Your task to perform on an android device: clear all cookies in the chrome app Image 0: 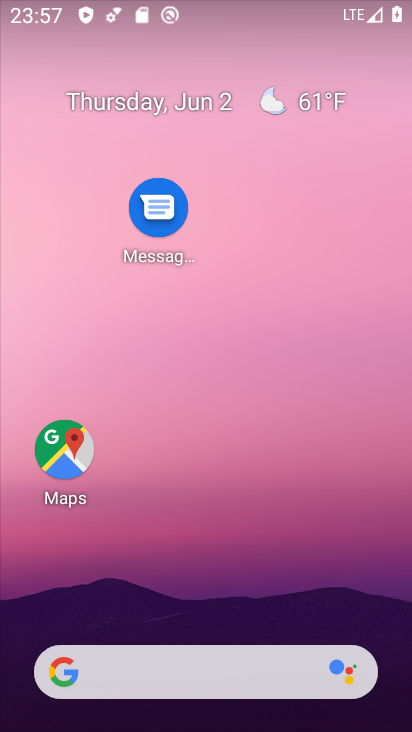
Step 0: drag from (218, 622) to (158, 93)
Your task to perform on an android device: clear all cookies in the chrome app Image 1: 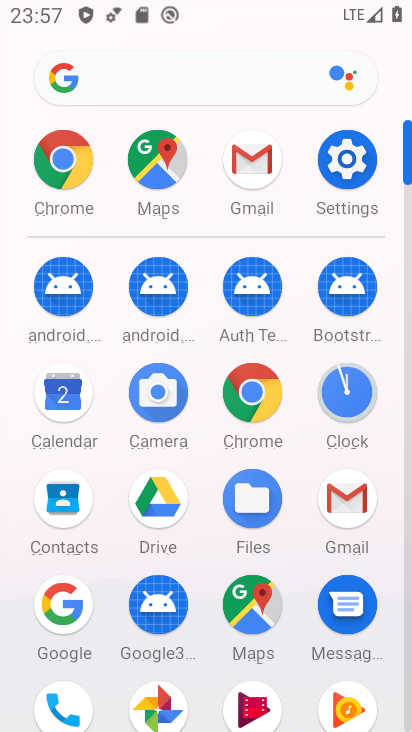
Step 1: click (257, 401)
Your task to perform on an android device: clear all cookies in the chrome app Image 2: 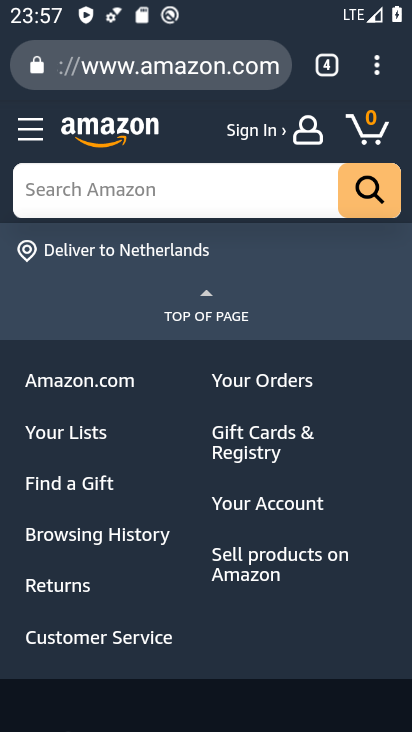
Step 2: drag from (376, 62) to (186, 642)
Your task to perform on an android device: clear all cookies in the chrome app Image 3: 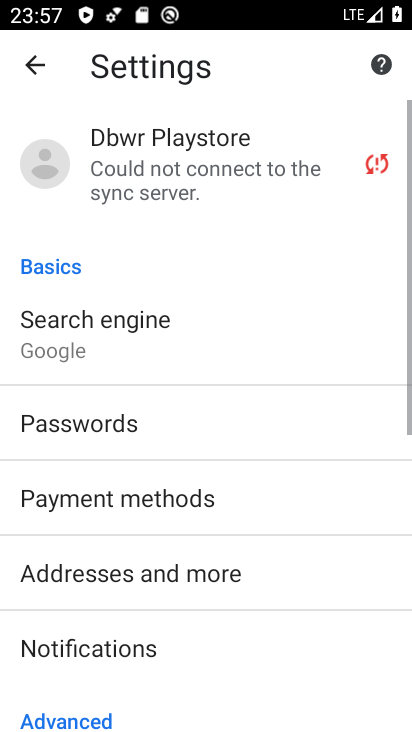
Step 3: drag from (185, 642) to (127, 111)
Your task to perform on an android device: clear all cookies in the chrome app Image 4: 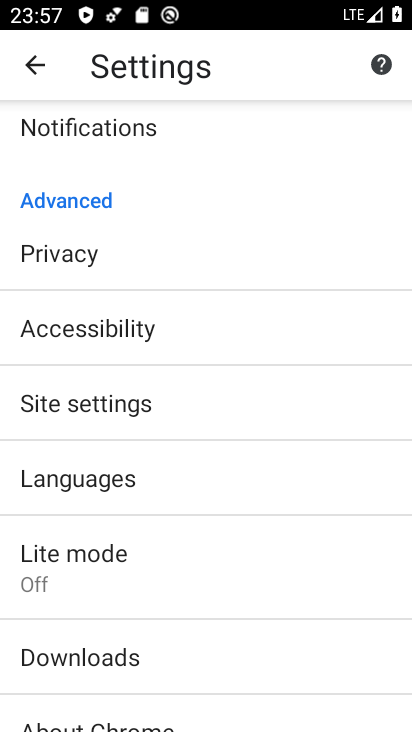
Step 4: click (60, 253)
Your task to perform on an android device: clear all cookies in the chrome app Image 5: 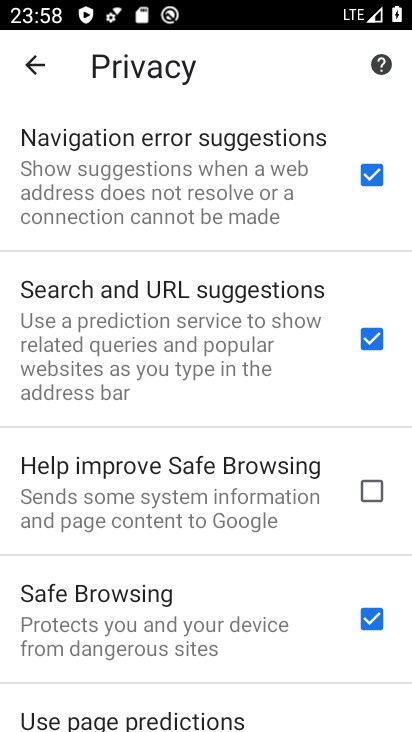
Step 5: drag from (139, 549) to (110, 3)
Your task to perform on an android device: clear all cookies in the chrome app Image 6: 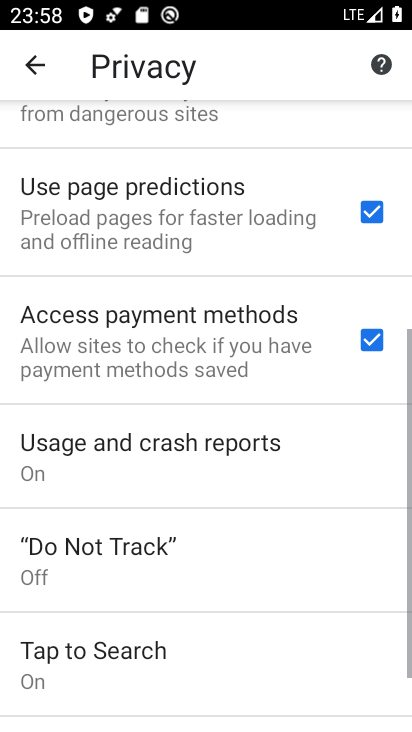
Step 6: drag from (236, 717) to (238, 19)
Your task to perform on an android device: clear all cookies in the chrome app Image 7: 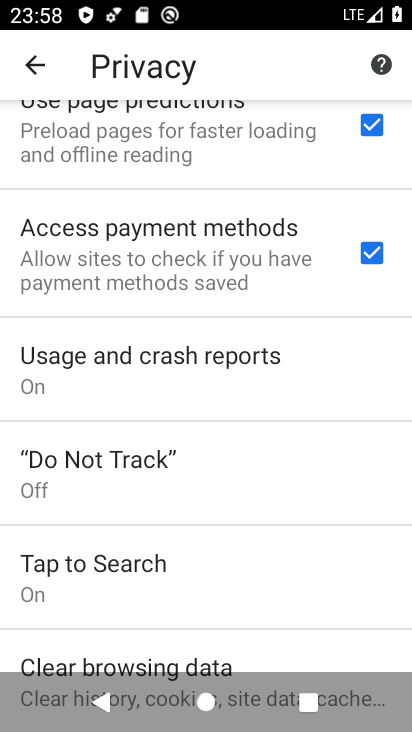
Step 7: click (96, 644)
Your task to perform on an android device: clear all cookies in the chrome app Image 8: 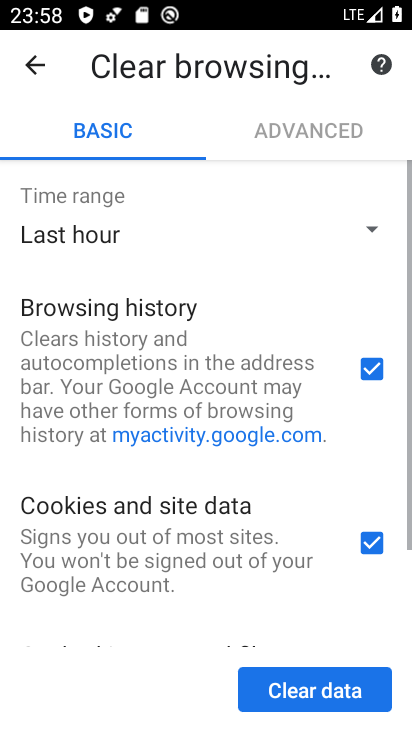
Step 8: click (339, 665)
Your task to perform on an android device: clear all cookies in the chrome app Image 9: 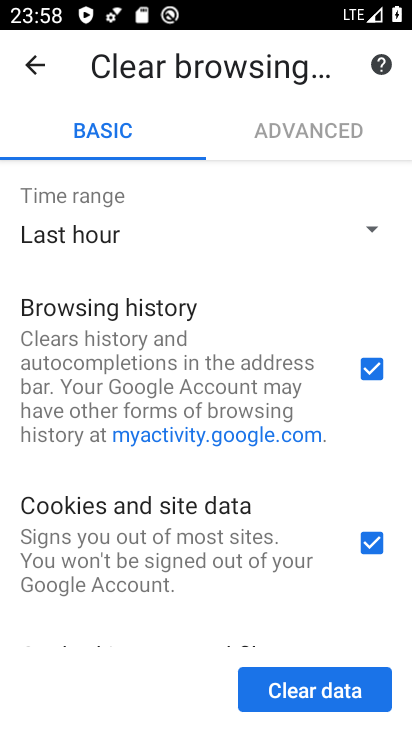
Step 9: click (332, 687)
Your task to perform on an android device: clear all cookies in the chrome app Image 10: 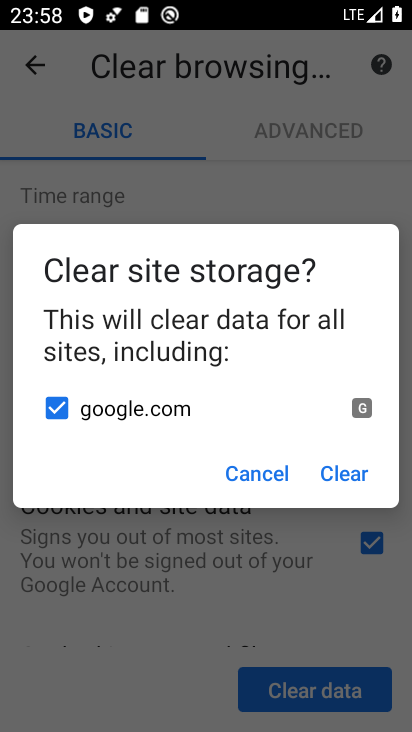
Step 10: click (327, 493)
Your task to perform on an android device: clear all cookies in the chrome app Image 11: 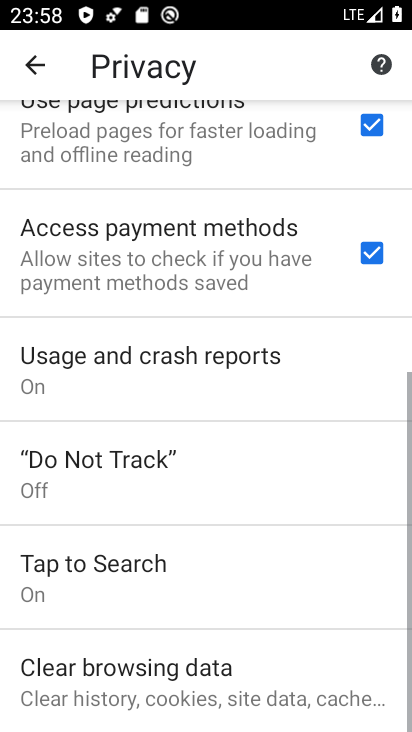
Step 11: task complete